Your task to perform on an android device: toggle javascript in the chrome app Image 0: 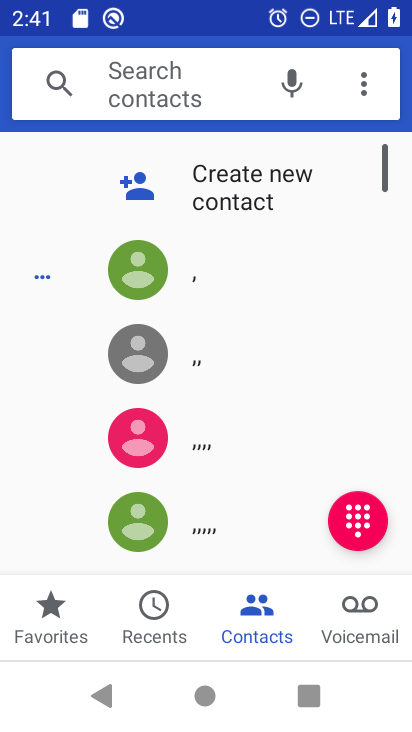
Step 0: press home button
Your task to perform on an android device: toggle javascript in the chrome app Image 1: 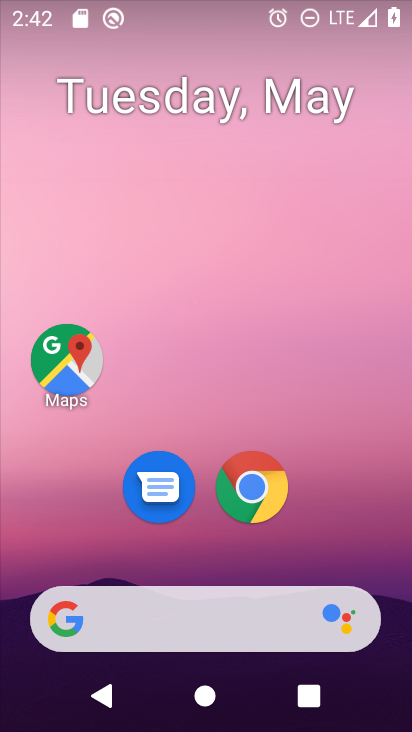
Step 1: click (247, 479)
Your task to perform on an android device: toggle javascript in the chrome app Image 2: 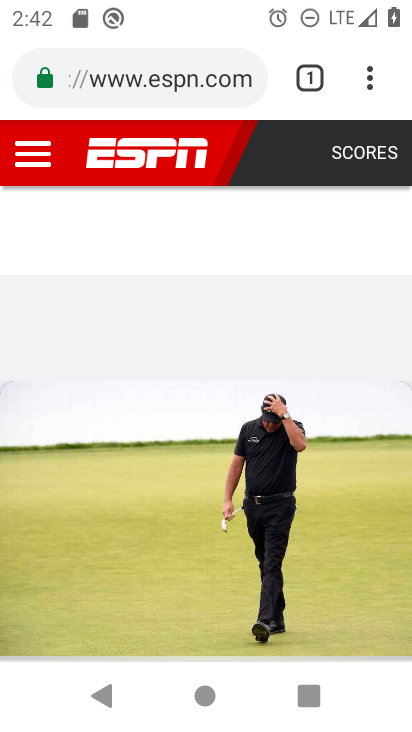
Step 2: click (373, 83)
Your task to perform on an android device: toggle javascript in the chrome app Image 3: 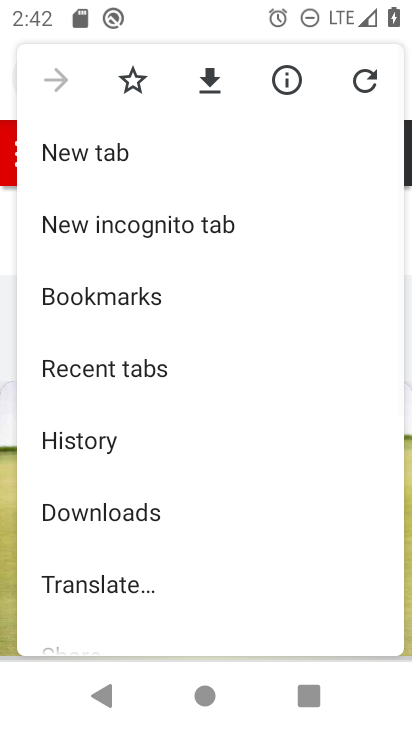
Step 3: drag from (117, 552) to (269, 114)
Your task to perform on an android device: toggle javascript in the chrome app Image 4: 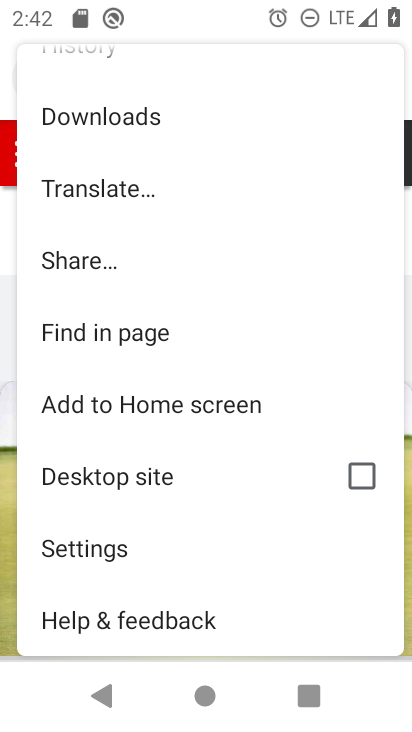
Step 4: click (107, 545)
Your task to perform on an android device: toggle javascript in the chrome app Image 5: 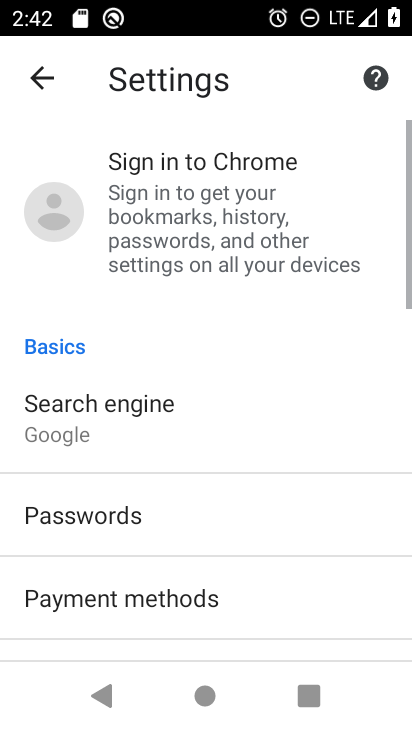
Step 5: drag from (93, 646) to (264, 221)
Your task to perform on an android device: toggle javascript in the chrome app Image 6: 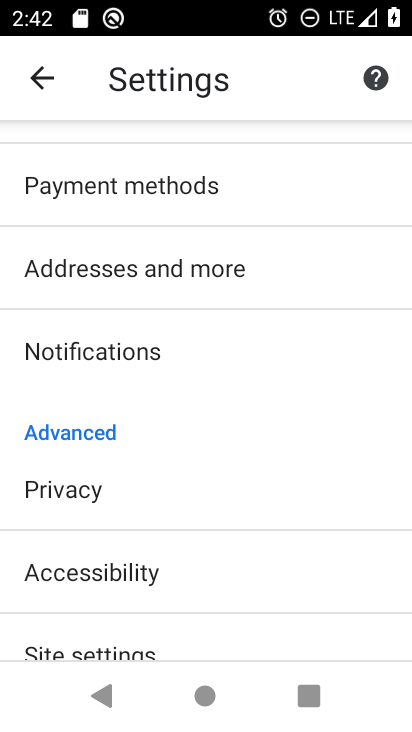
Step 6: drag from (124, 604) to (189, 382)
Your task to perform on an android device: toggle javascript in the chrome app Image 7: 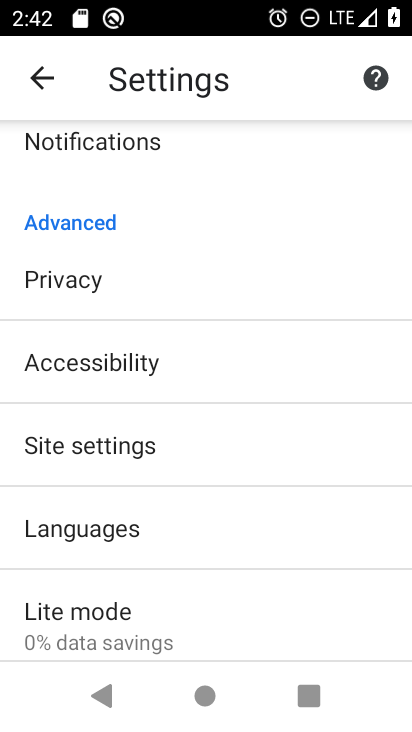
Step 7: click (141, 435)
Your task to perform on an android device: toggle javascript in the chrome app Image 8: 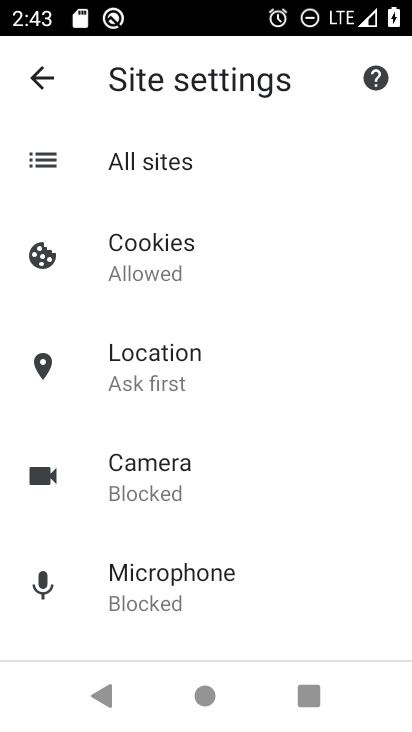
Step 8: drag from (166, 582) to (254, 304)
Your task to perform on an android device: toggle javascript in the chrome app Image 9: 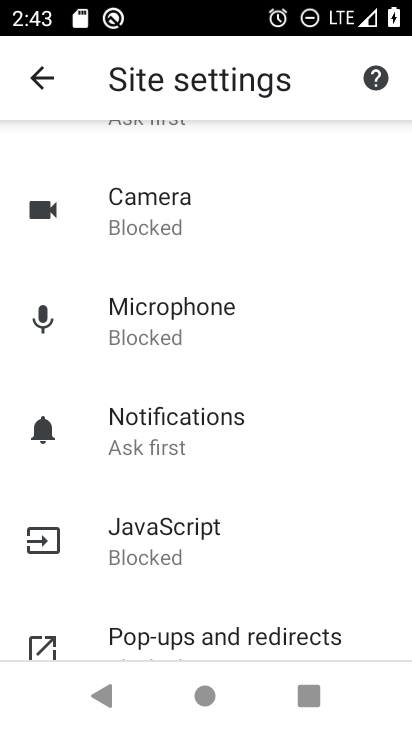
Step 9: drag from (218, 577) to (284, 312)
Your task to perform on an android device: toggle javascript in the chrome app Image 10: 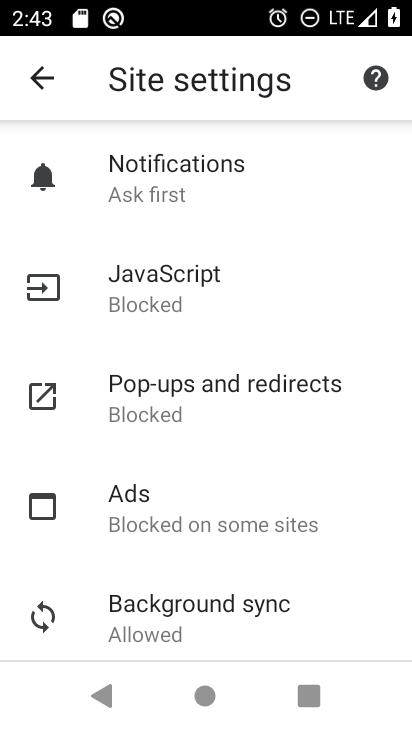
Step 10: drag from (237, 304) to (236, 568)
Your task to perform on an android device: toggle javascript in the chrome app Image 11: 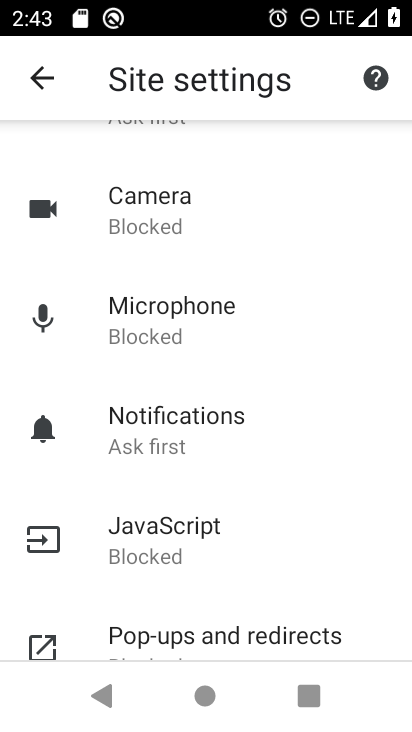
Step 11: click (212, 526)
Your task to perform on an android device: toggle javascript in the chrome app Image 12: 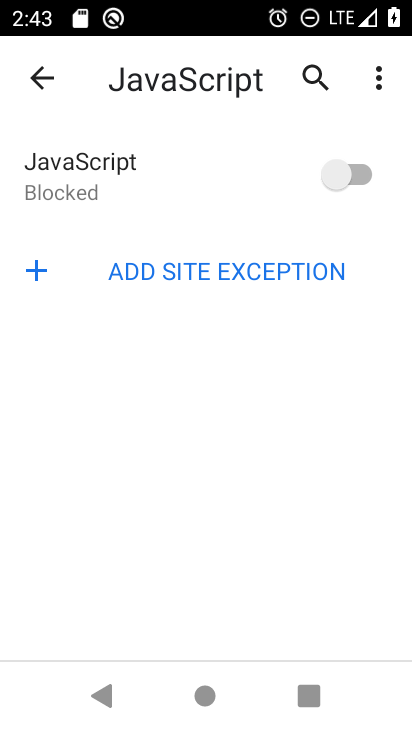
Step 12: click (342, 170)
Your task to perform on an android device: toggle javascript in the chrome app Image 13: 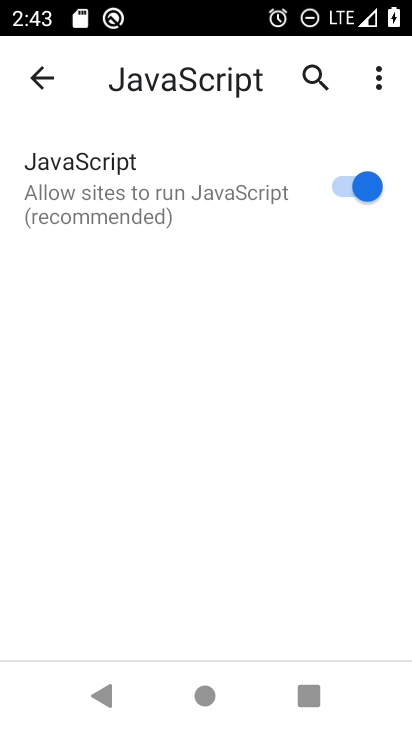
Step 13: task complete